Your task to perform on an android device: Open the stopwatch Image 0: 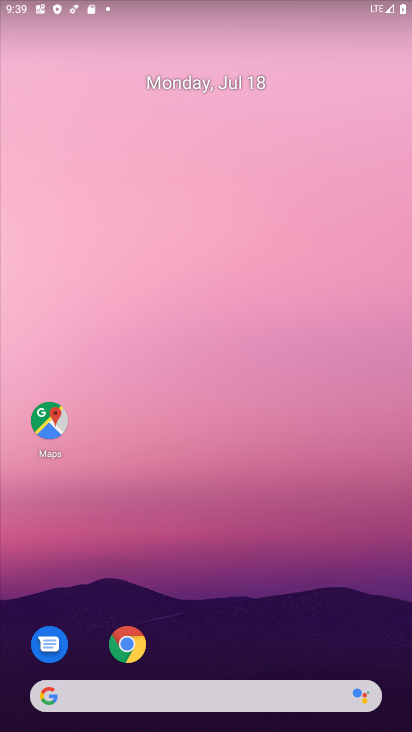
Step 0: drag from (214, 696) to (253, 11)
Your task to perform on an android device: Open the stopwatch Image 1: 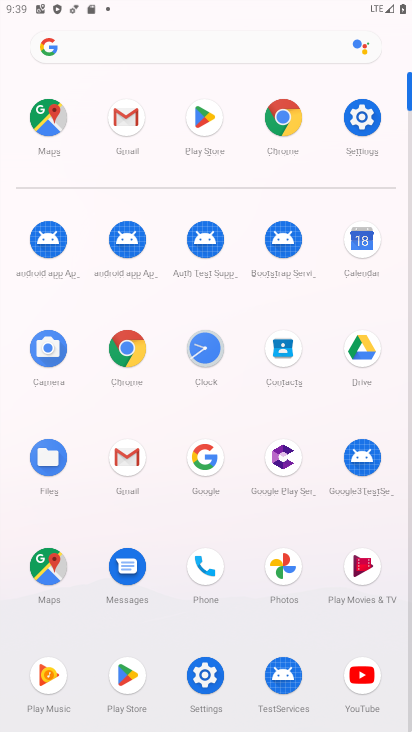
Step 1: click (192, 358)
Your task to perform on an android device: Open the stopwatch Image 2: 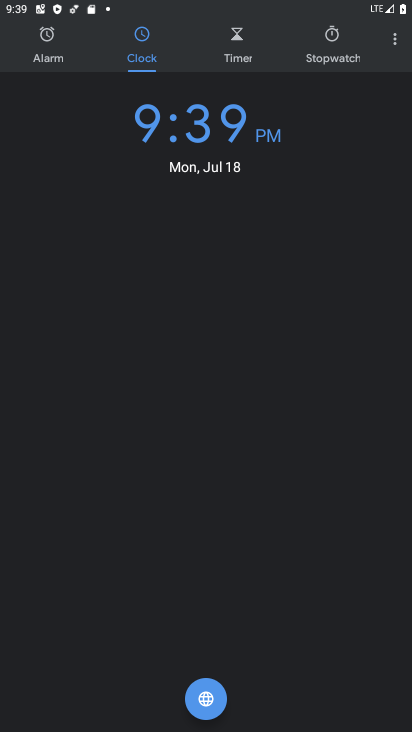
Step 2: click (332, 37)
Your task to perform on an android device: Open the stopwatch Image 3: 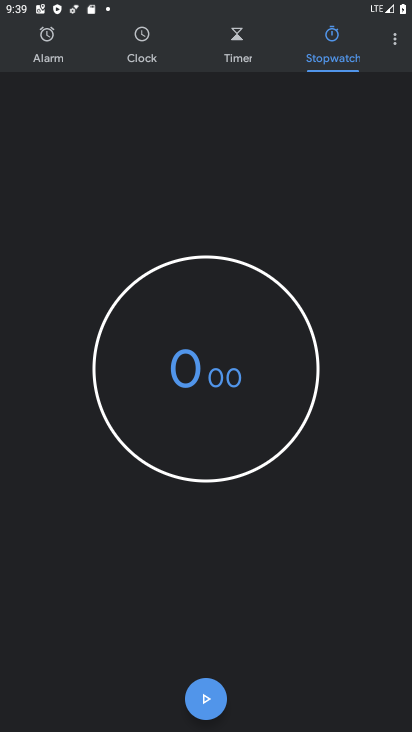
Step 3: click (196, 712)
Your task to perform on an android device: Open the stopwatch Image 4: 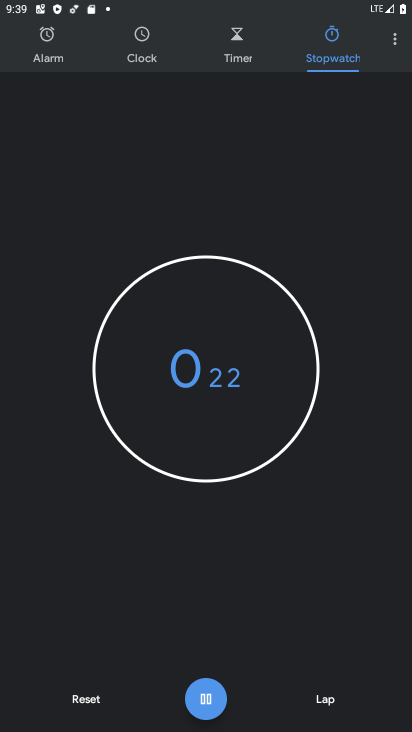
Step 4: click (196, 711)
Your task to perform on an android device: Open the stopwatch Image 5: 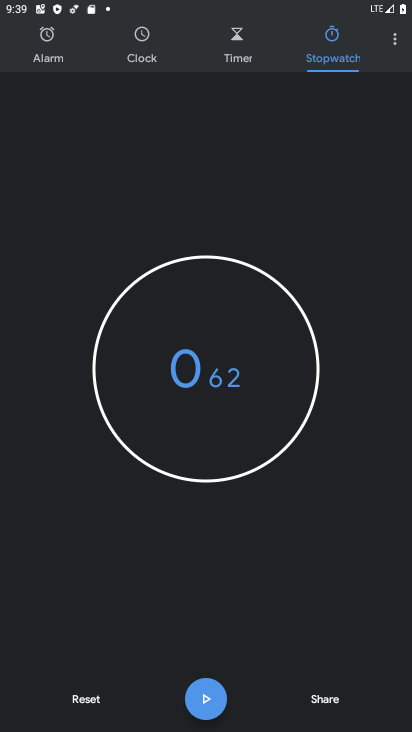
Step 5: task complete